Your task to perform on an android device: Open calendar and show me the third week of next month Image 0: 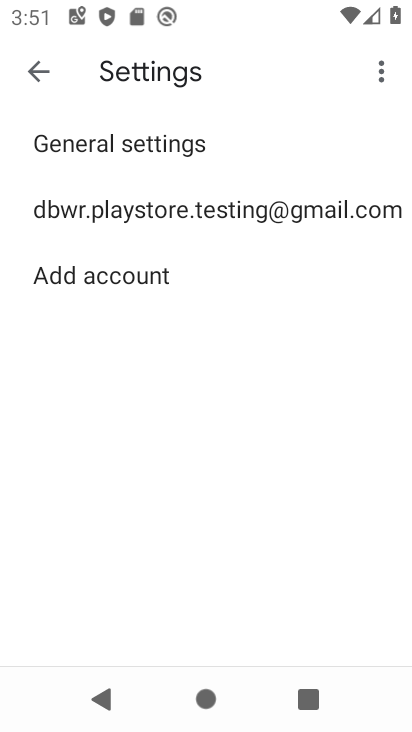
Step 0: press back button
Your task to perform on an android device: Open calendar and show me the third week of next month Image 1: 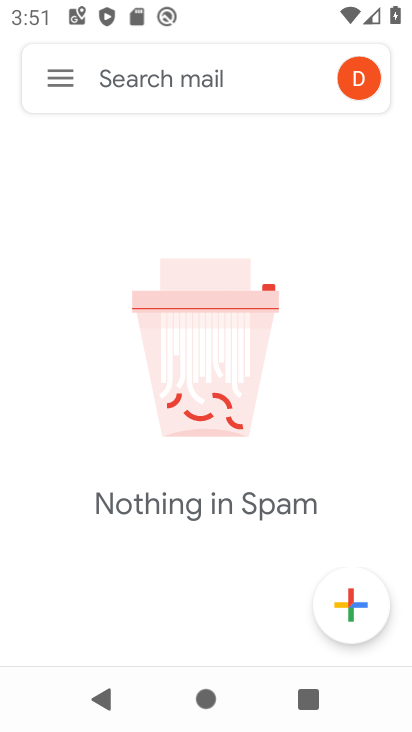
Step 1: press back button
Your task to perform on an android device: Open calendar and show me the third week of next month Image 2: 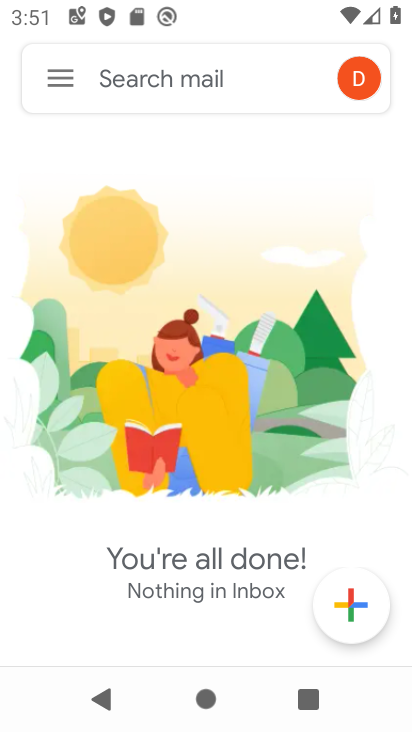
Step 2: press back button
Your task to perform on an android device: Open calendar and show me the third week of next month Image 3: 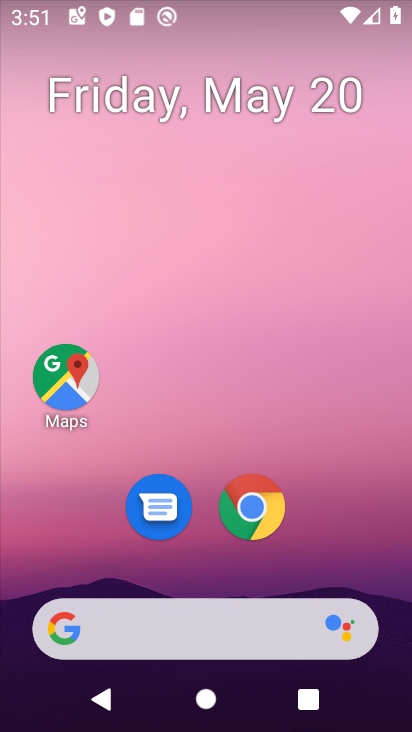
Step 3: drag from (338, 570) to (207, 95)
Your task to perform on an android device: Open calendar and show me the third week of next month Image 4: 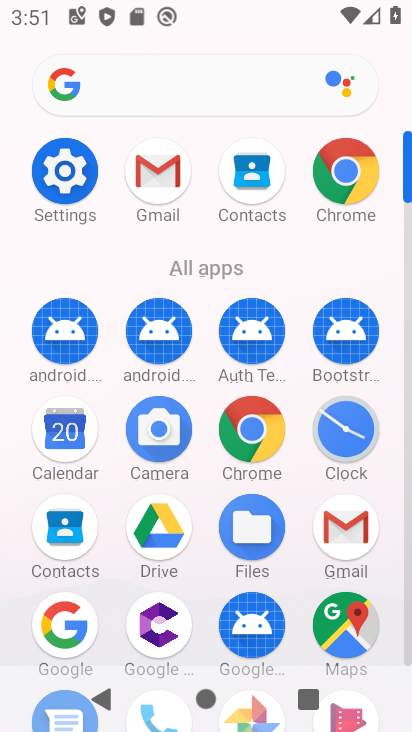
Step 4: click (64, 433)
Your task to perform on an android device: Open calendar and show me the third week of next month Image 5: 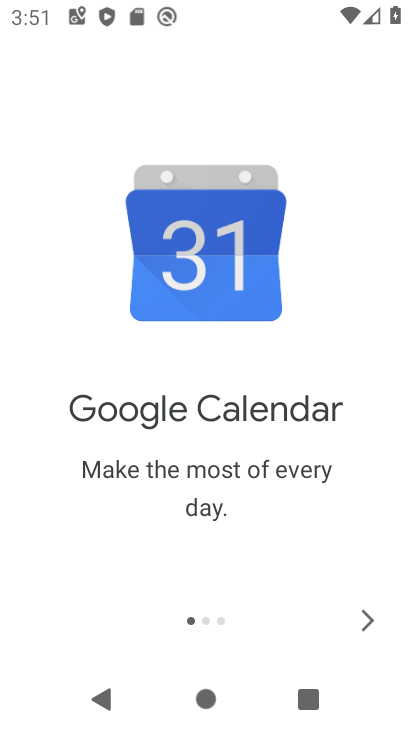
Step 5: click (370, 617)
Your task to perform on an android device: Open calendar and show me the third week of next month Image 6: 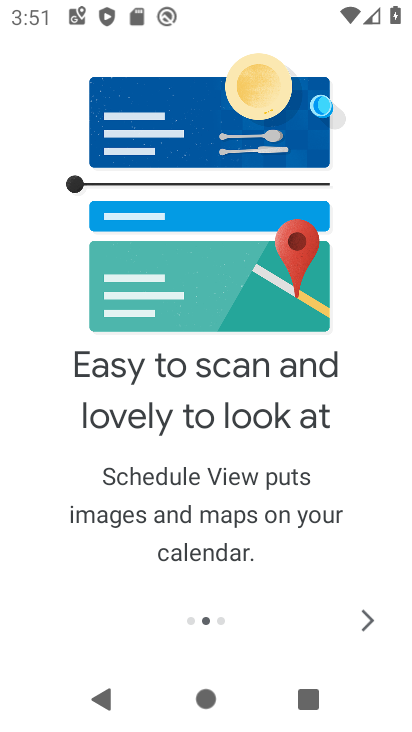
Step 6: click (370, 617)
Your task to perform on an android device: Open calendar and show me the third week of next month Image 7: 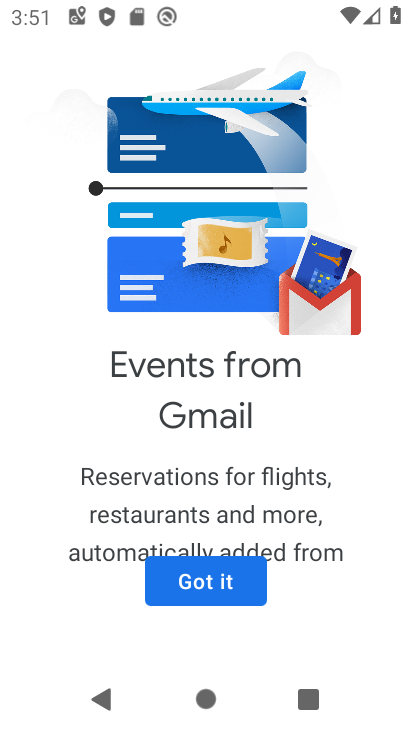
Step 7: click (192, 581)
Your task to perform on an android device: Open calendar and show me the third week of next month Image 8: 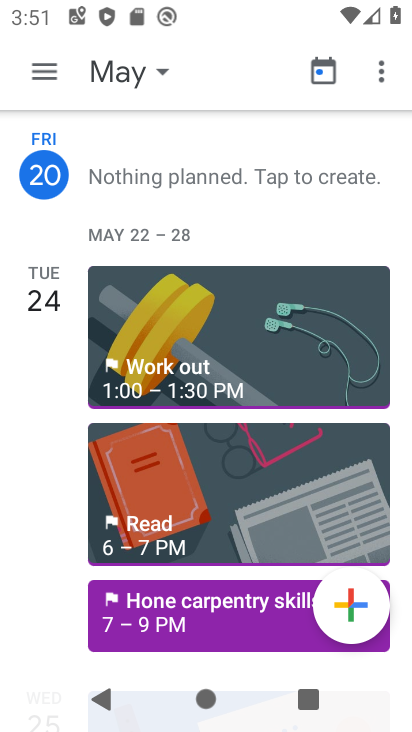
Step 8: click (159, 72)
Your task to perform on an android device: Open calendar and show me the third week of next month Image 9: 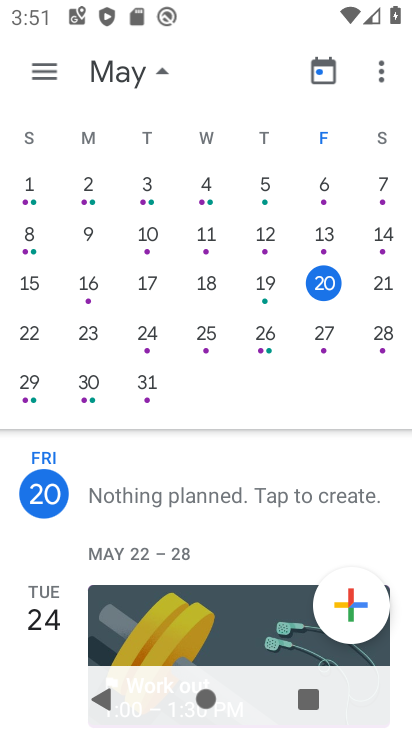
Step 9: drag from (376, 315) to (0, 394)
Your task to perform on an android device: Open calendar and show me the third week of next month Image 10: 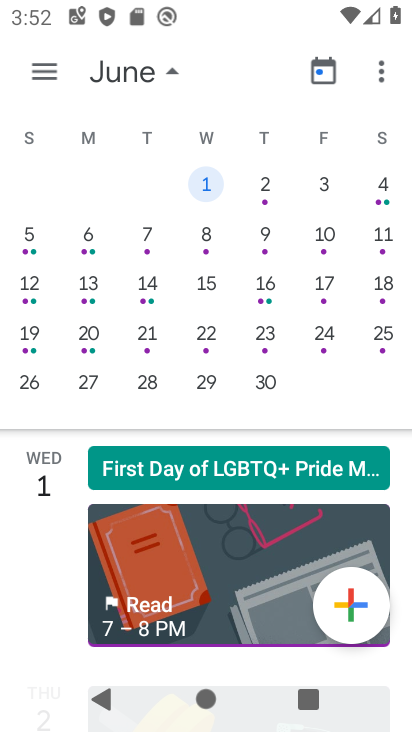
Step 10: click (79, 337)
Your task to perform on an android device: Open calendar and show me the third week of next month Image 11: 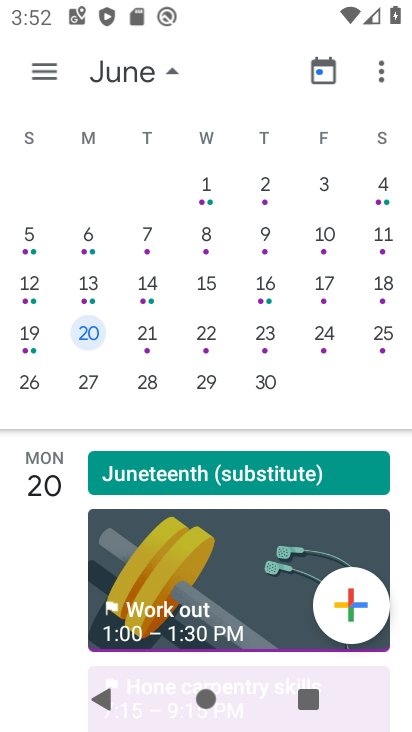
Step 11: click (45, 73)
Your task to perform on an android device: Open calendar and show me the third week of next month Image 12: 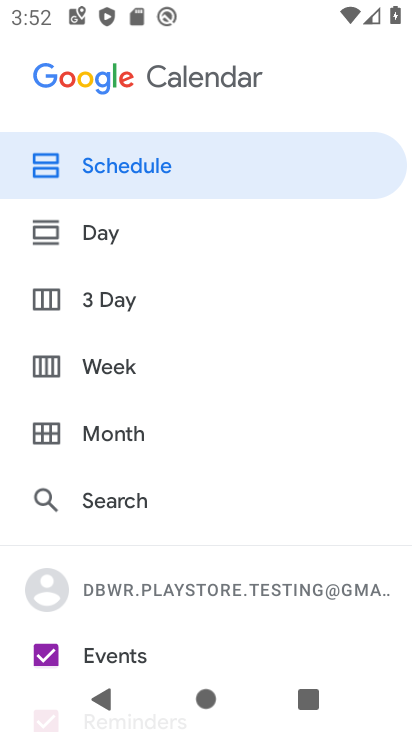
Step 12: click (109, 369)
Your task to perform on an android device: Open calendar and show me the third week of next month Image 13: 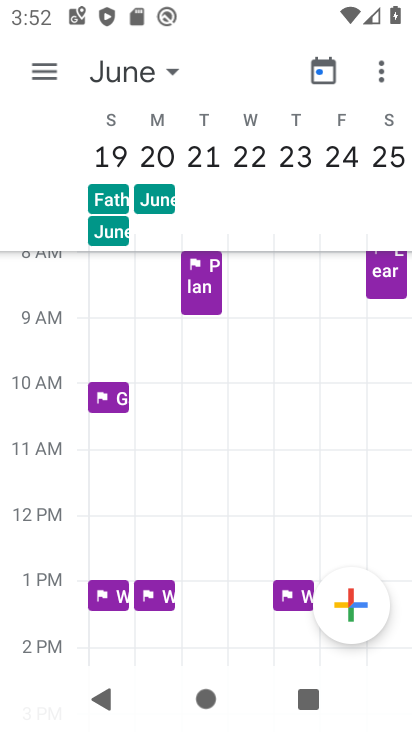
Step 13: task complete